Your task to perform on an android device: Clear all items from cart on costco.com. Search for razer blade on costco.com, select the first entry, and add it to the cart. Image 0: 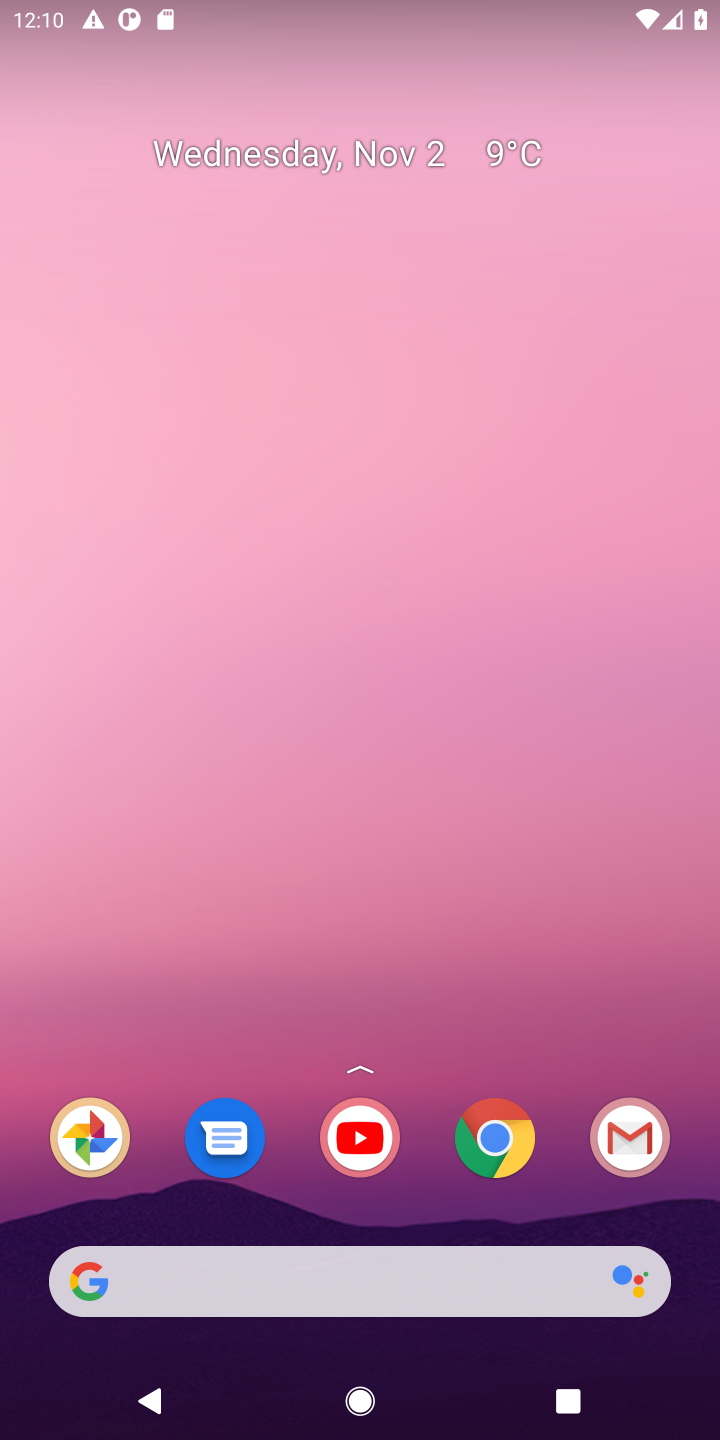
Step 0: click (240, 1293)
Your task to perform on an android device: Clear all items from cart on costco.com. Search for razer blade on costco.com, select the first entry, and add it to the cart. Image 1: 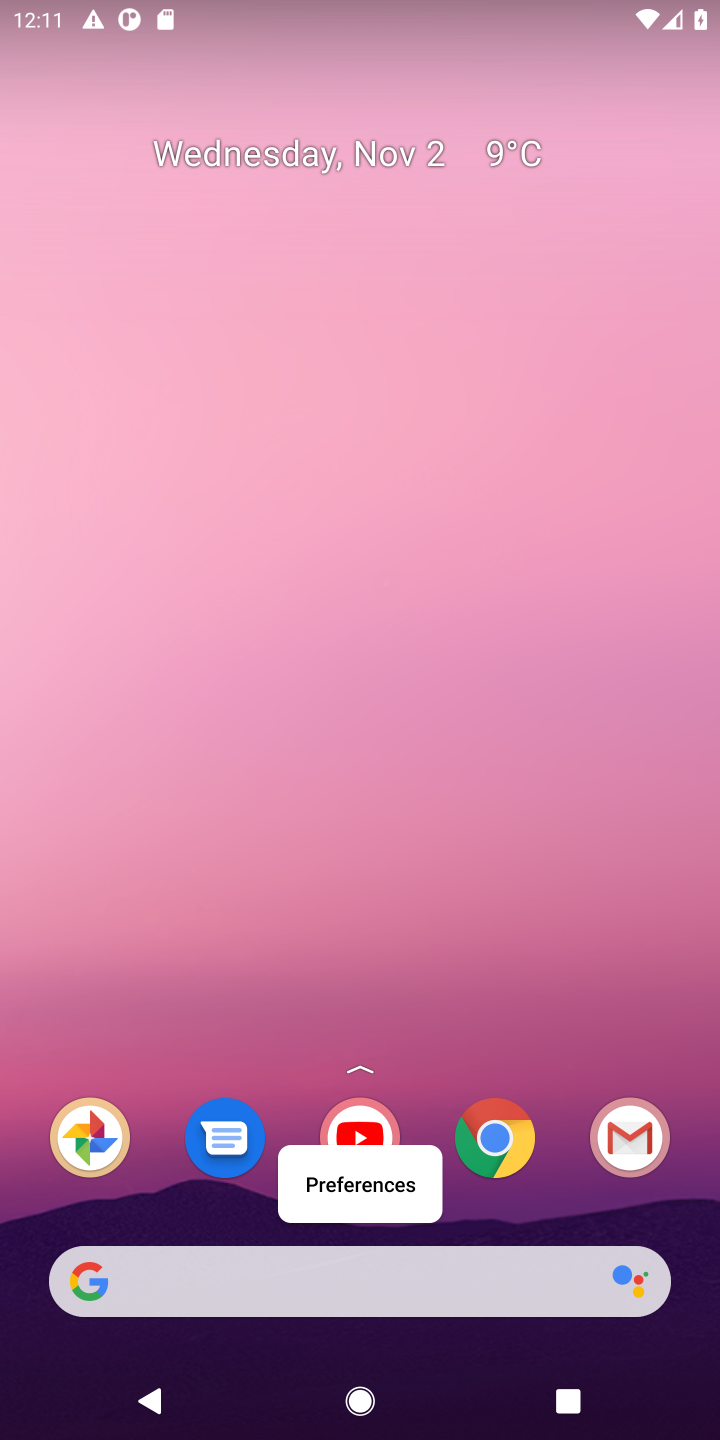
Step 1: click (424, 1295)
Your task to perform on an android device: Clear all items from cart on costco.com. Search for razer blade on costco.com, select the first entry, and add it to the cart. Image 2: 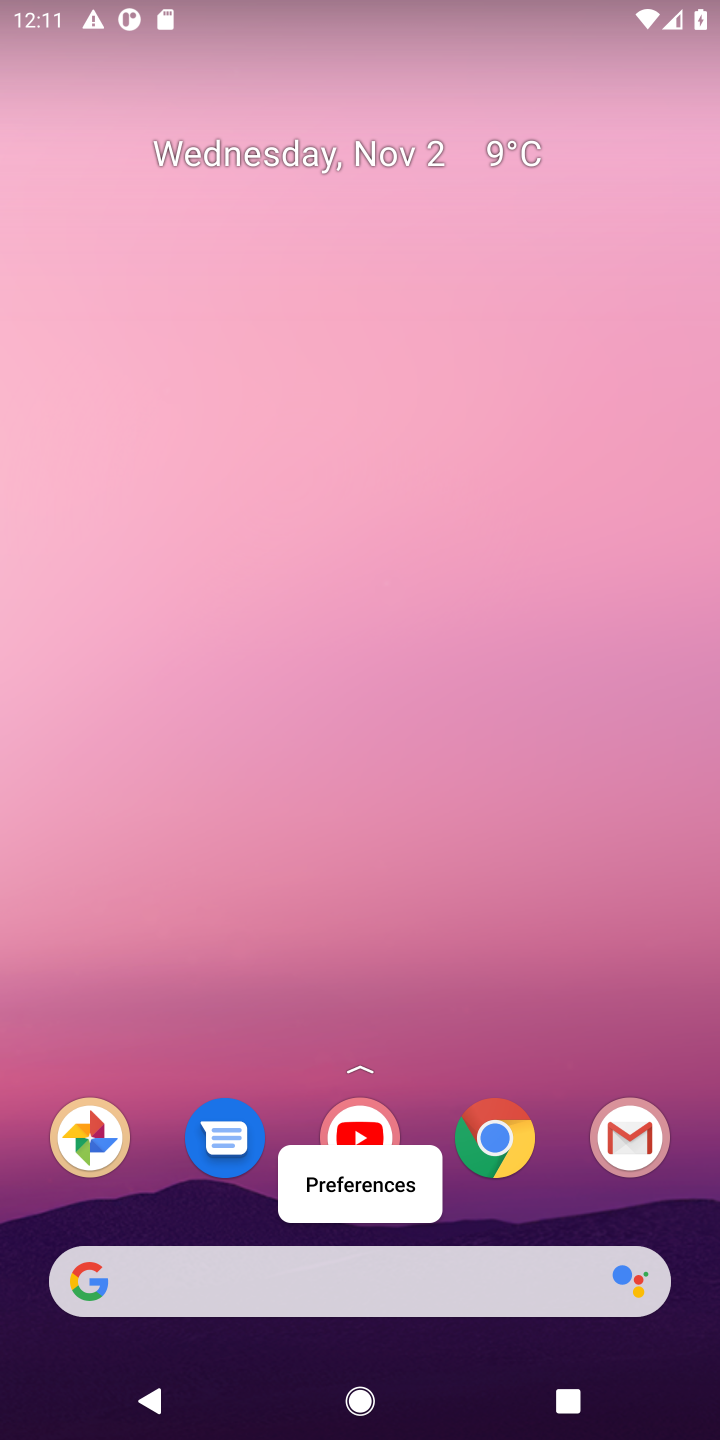
Step 2: click (467, 1283)
Your task to perform on an android device: Clear all items from cart on costco.com. Search for razer blade on costco.com, select the first entry, and add it to the cart. Image 3: 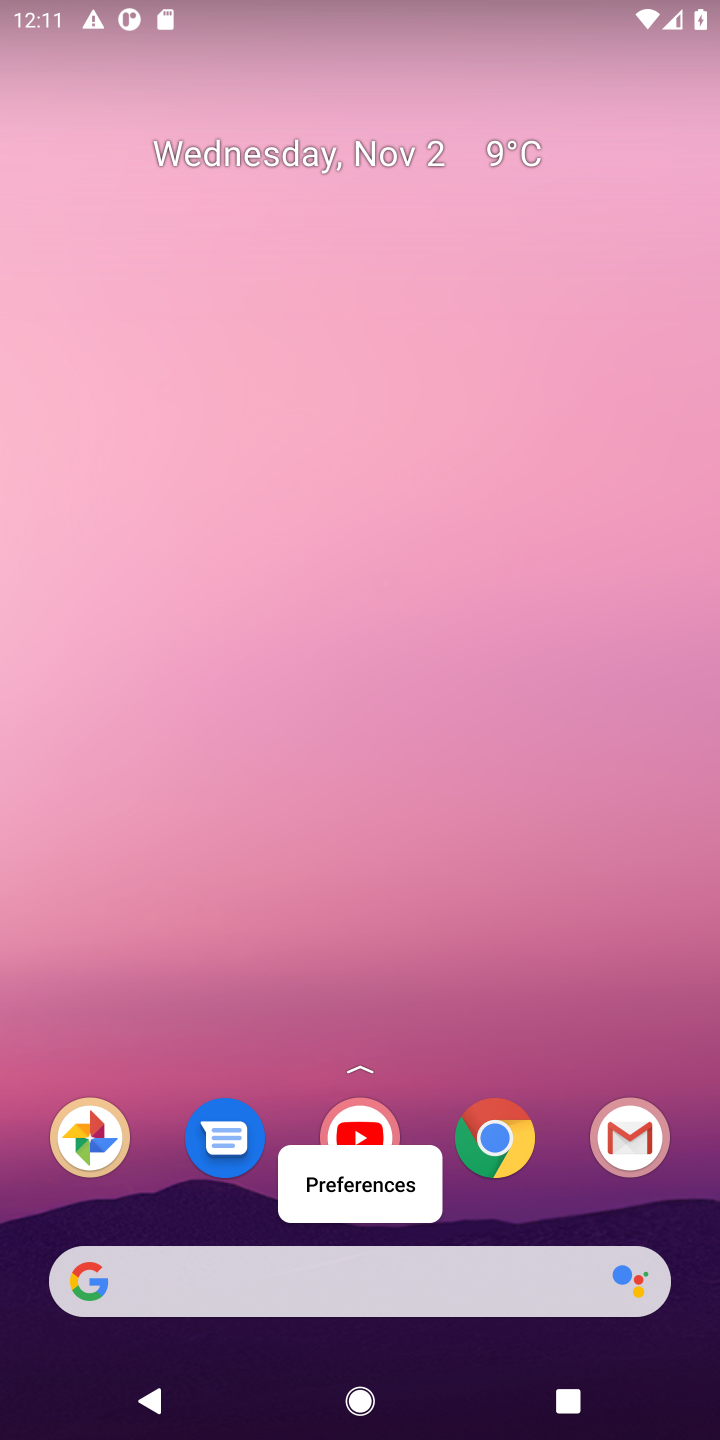
Step 3: click (466, 1295)
Your task to perform on an android device: Clear all items from cart on costco.com. Search for razer blade on costco.com, select the first entry, and add it to the cart. Image 4: 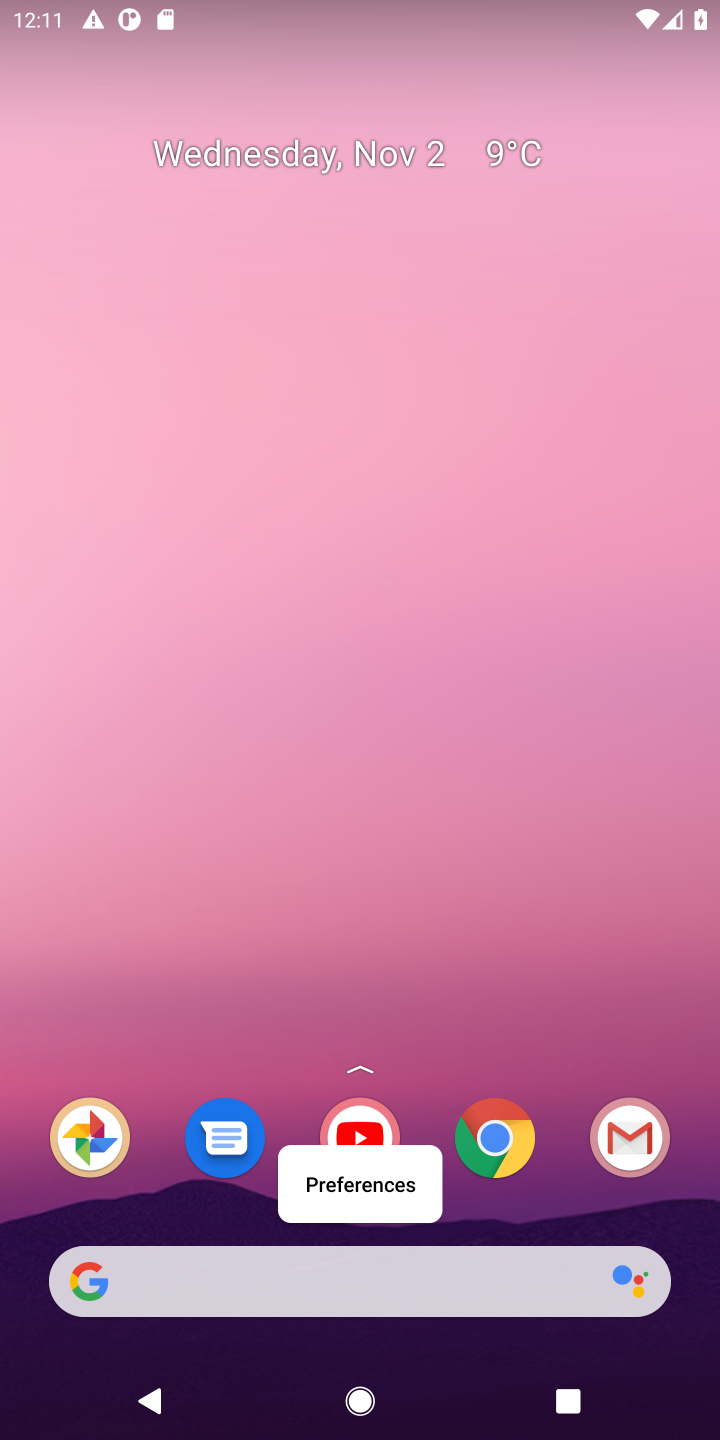
Step 4: click (463, 1266)
Your task to perform on an android device: Clear all items from cart on costco.com. Search for razer blade on costco.com, select the first entry, and add it to the cart. Image 5: 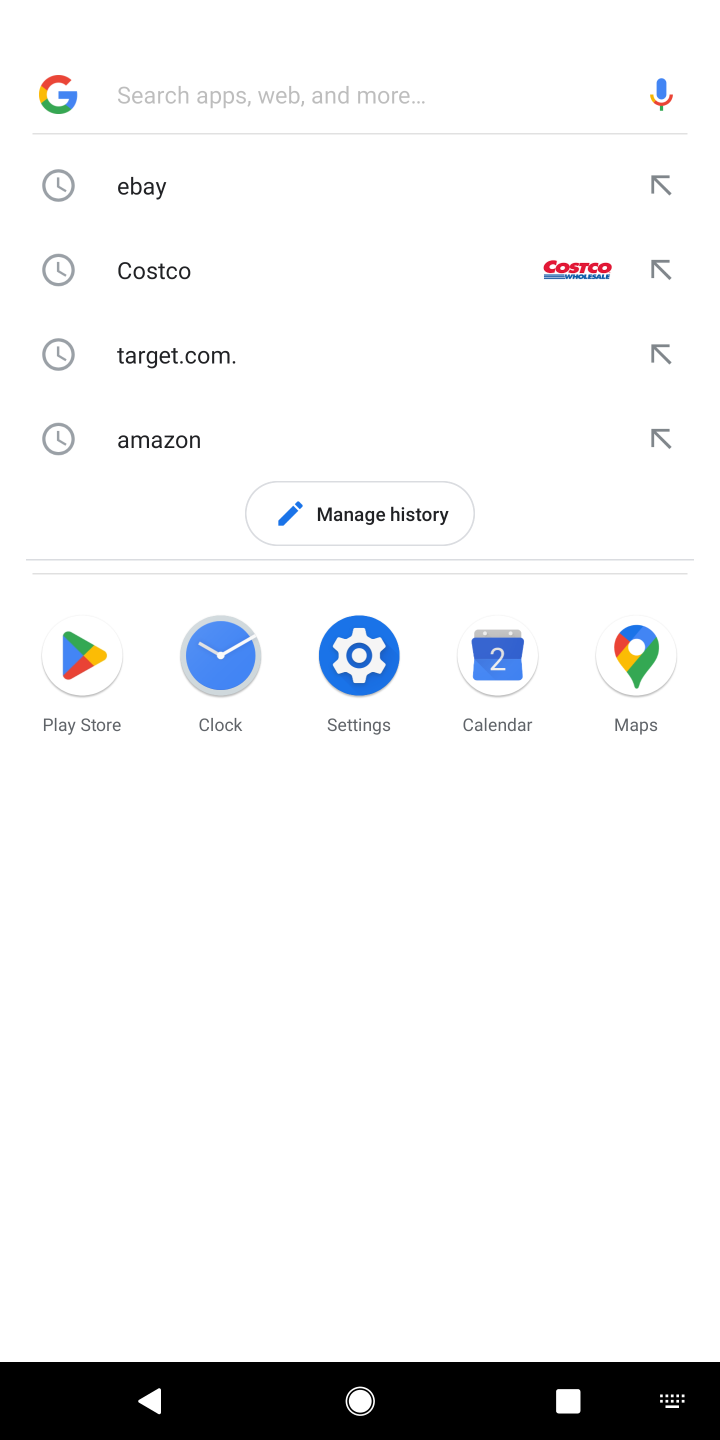
Step 5: click (146, 286)
Your task to perform on an android device: Clear all items from cart on costco.com. Search for razer blade on costco.com, select the first entry, and add it to the cart. Image 6: 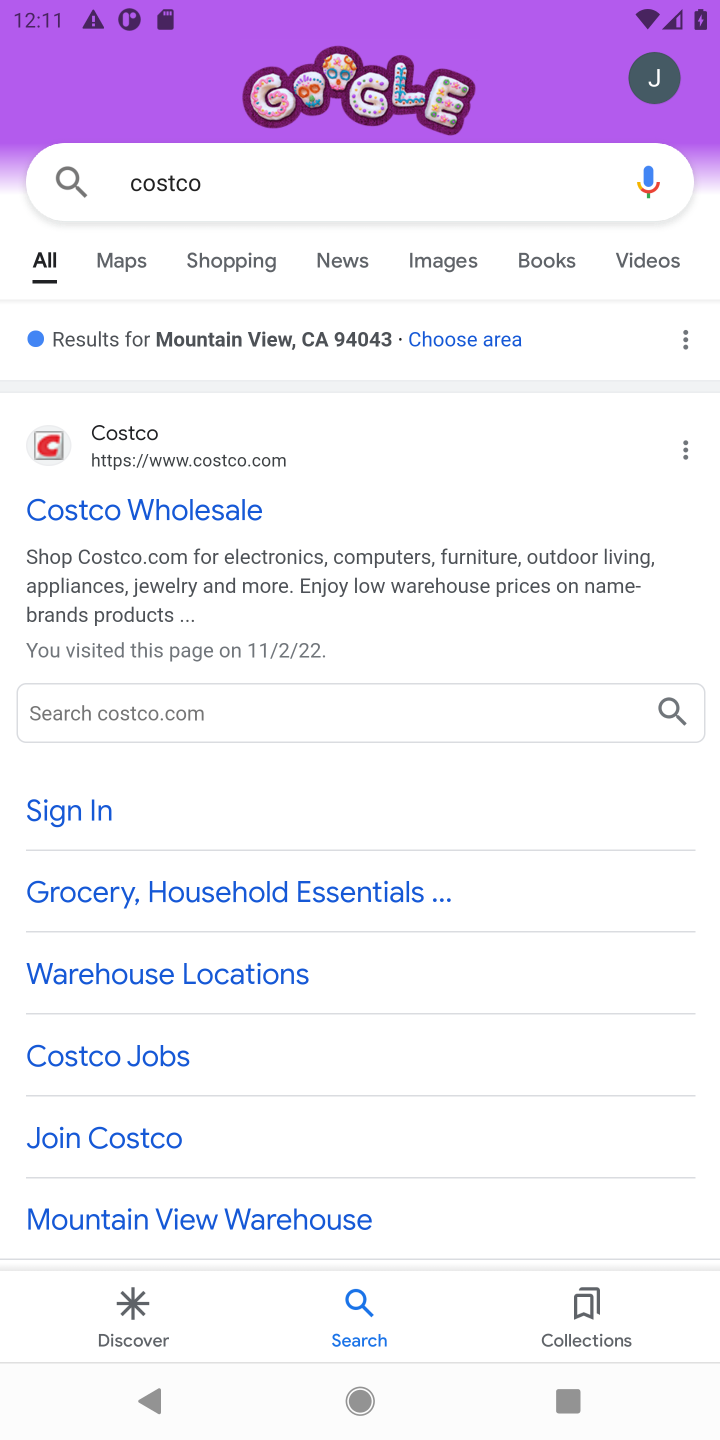
Step 6: click (196, 449)
Your task to perform on an android device: Clear all items from cart on costco.com. Search for razer blade on costco.com, select the first entry, and add it to the cart. Image 7: 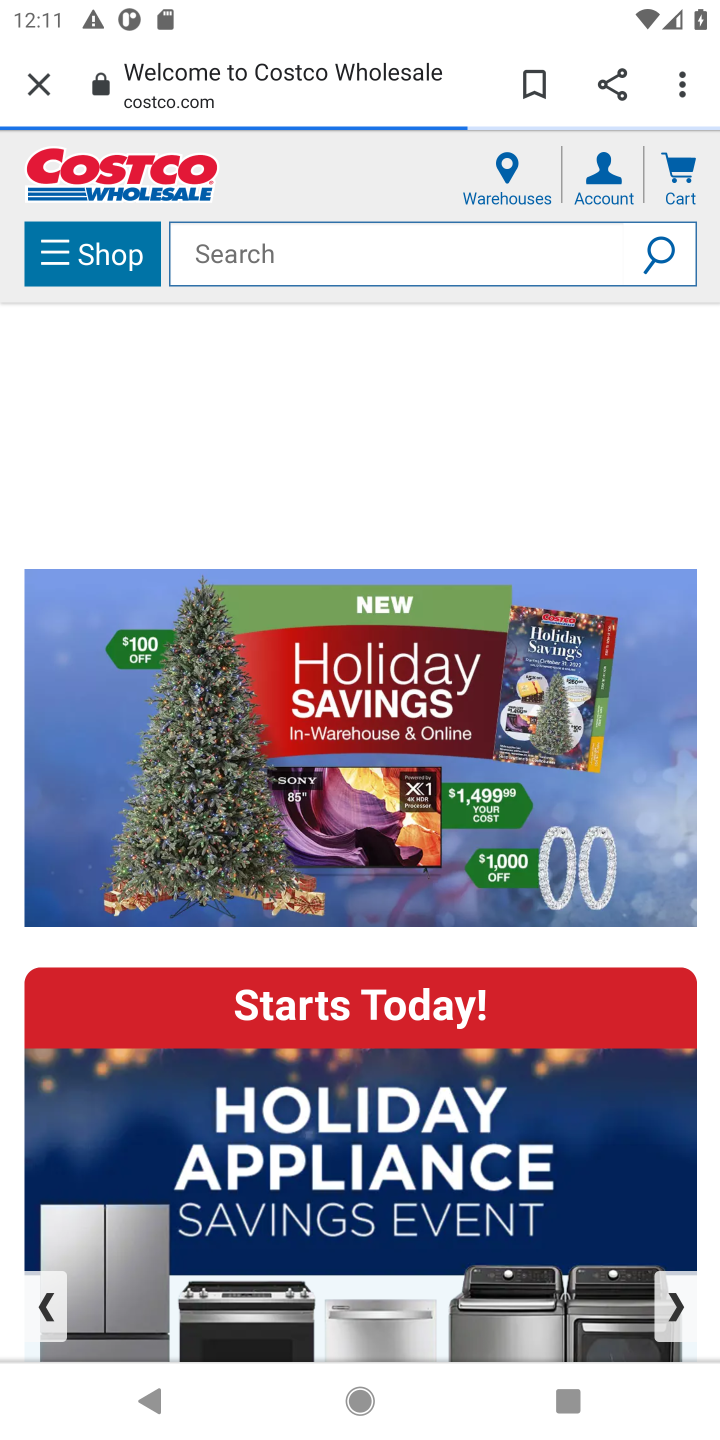
Step 7: click (250, 260)
Your task to perform on an android device: Clear all items from cart on costco.com. Search for razer blade on costco.com, select the first entry, and add it to the cart. Image 8: 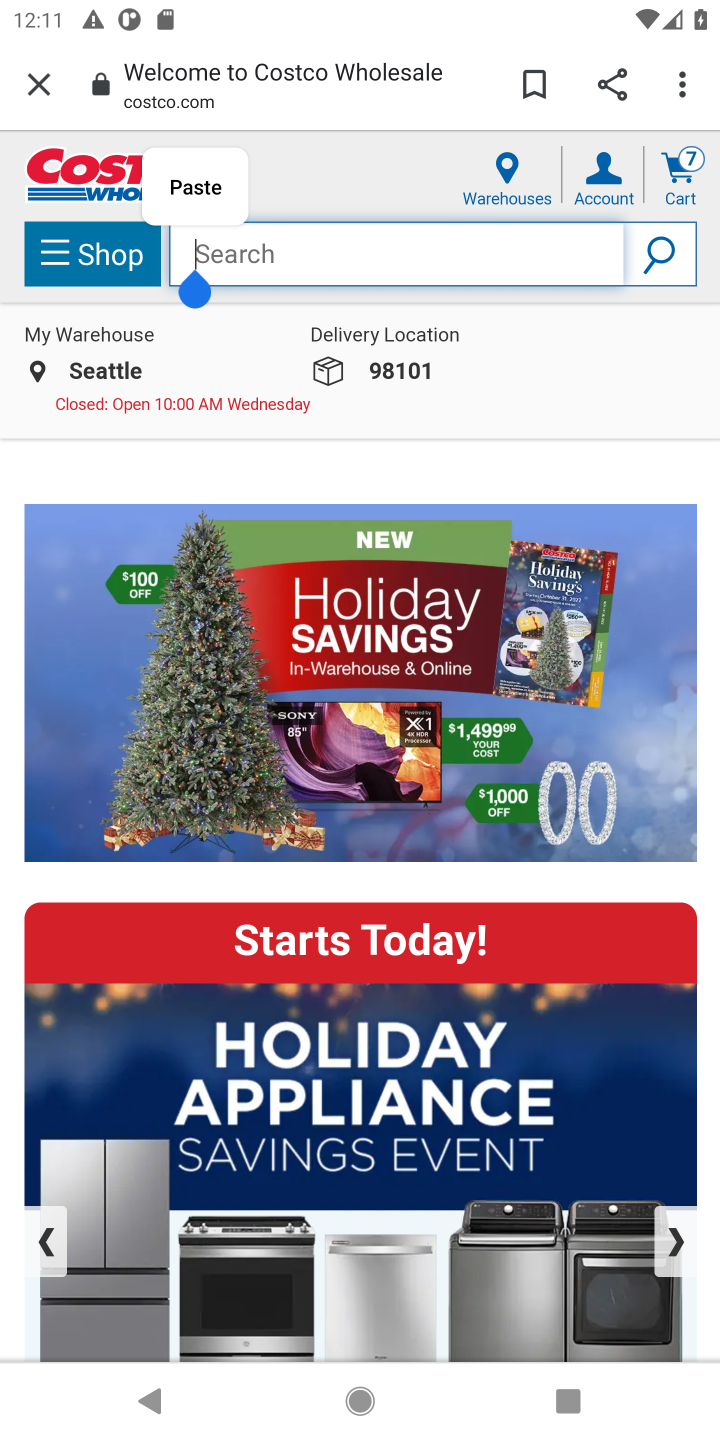
Step 8: type "razer blade"
Your task to perform on an android device: Clear all items from cart on costco.com. Search for razer blade on costco.com, select the first entry, and add it to the cart. Image 9: 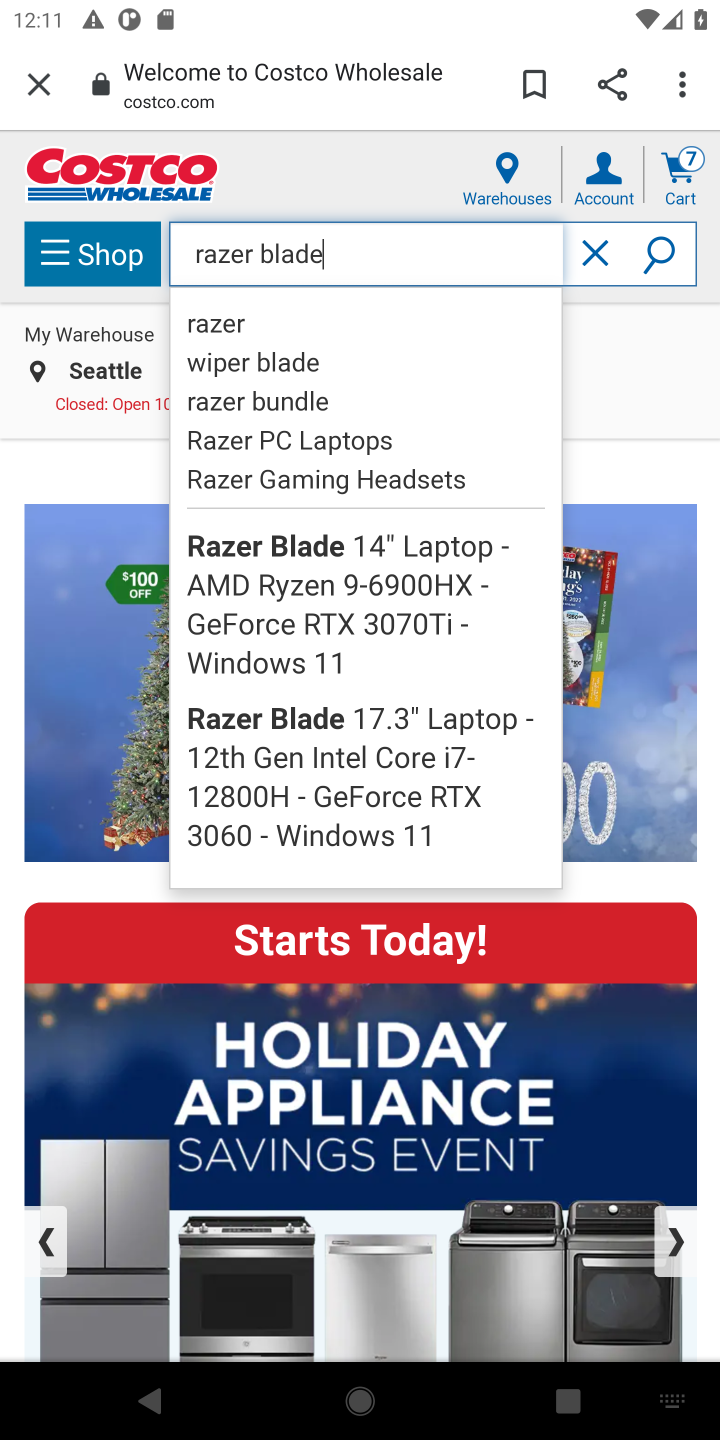
Step 9: click (640, 269)
Your task to perform on an android device: Clear all items from cart on costco.com. Search for razer blade on costco.com, select the first entry, and add it to the cart. Image 10: 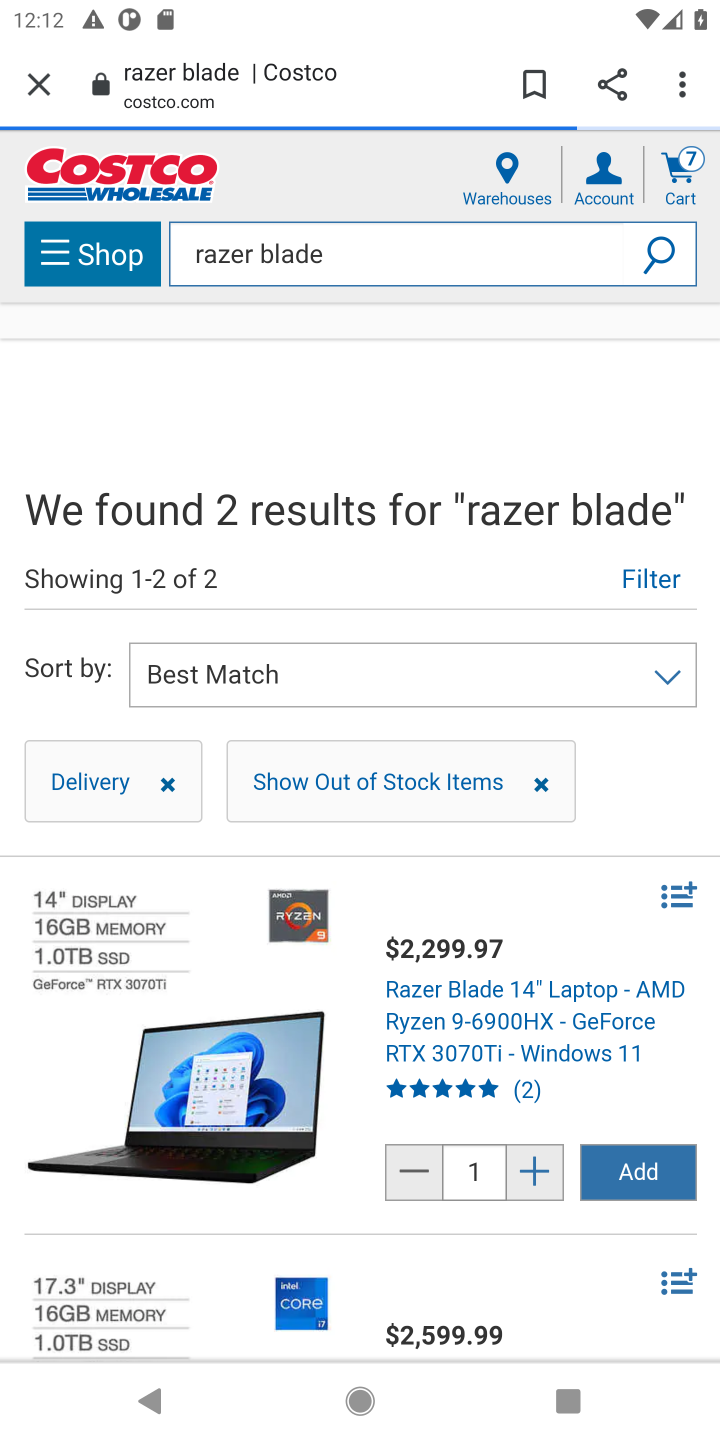
Step 10: click (608, 1157)
Your task to perform on an android device: Clear all items from cart on costco.com. Search for razer blade on costco.com, select the first entry, and add it to the cart. Image 11: 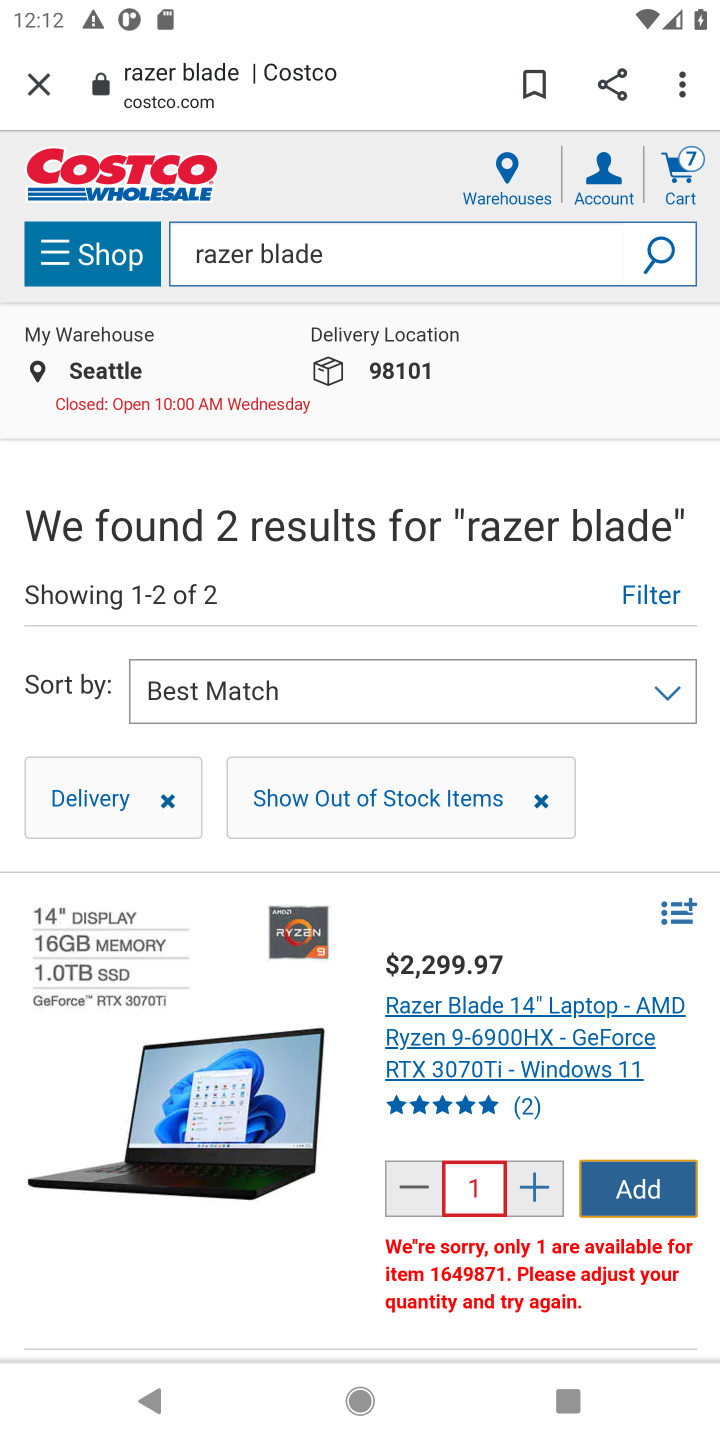
Step 11: task complete